Your task to perform on an android device: install app "Paramount+ | Peak Streaming" Image 0: 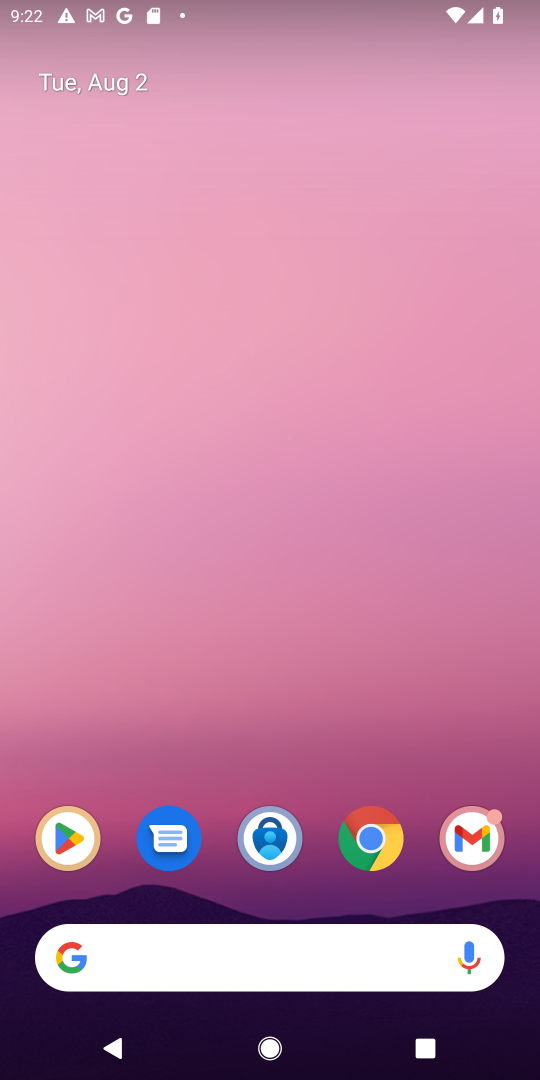
Step 0: press home button
Your task to perform on an android device: install app "Paramount+ | Peak Streaming" Image 1: 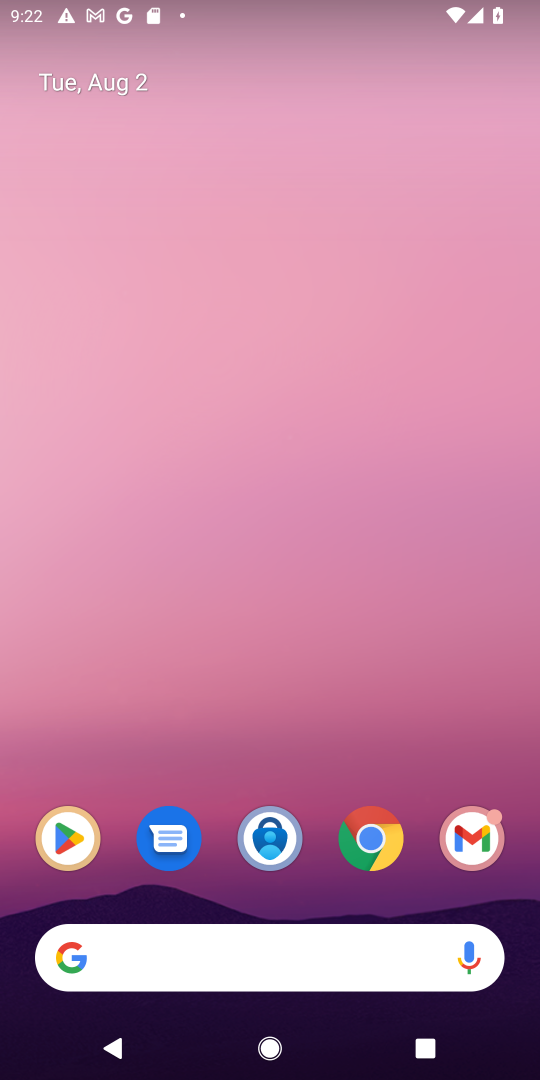
Step 1: drag from (322, 731) to (342, 63)
Your task to perform on an android device: install app "Paramount+ | Peak Streaming" Image 2: 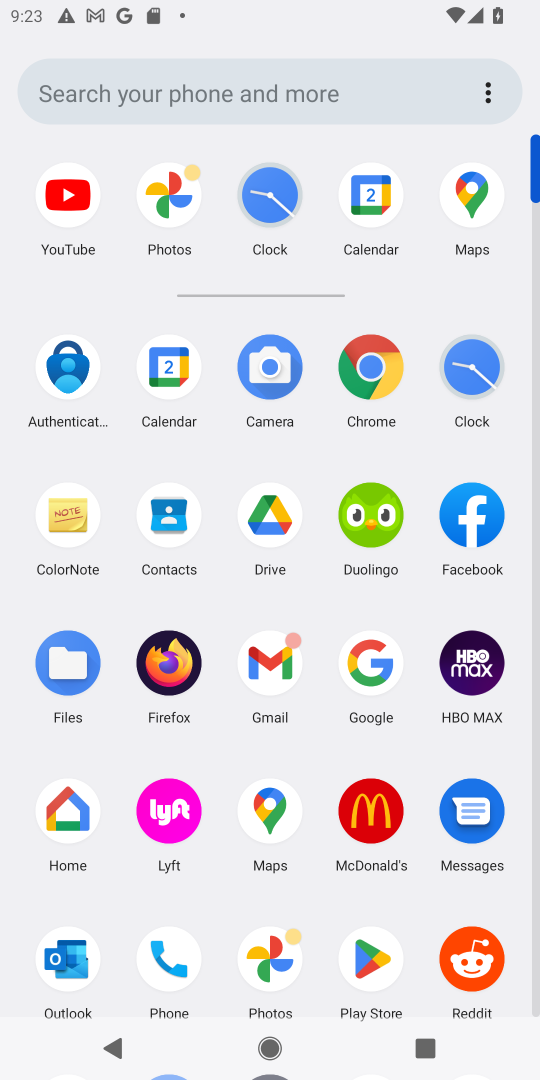
Step 2: click (374, 969)
Your task to perform on an android device: install app "Paramount+ | Peak Streaming" Image 3: 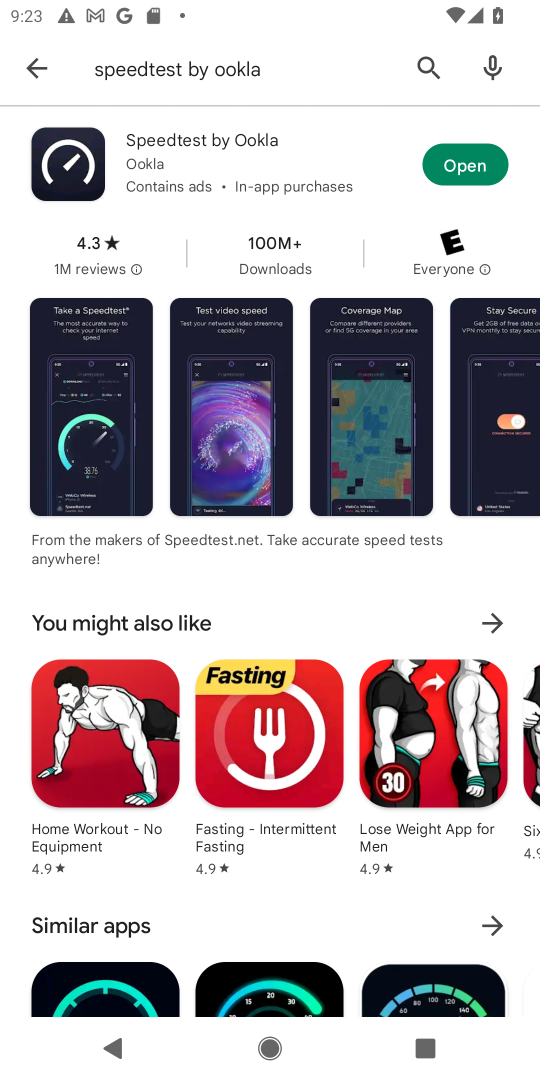
Step 3: click (426, 62)
Your task to perform on an android device: install app "Paramount+ | Peak Streaming" Image 4: 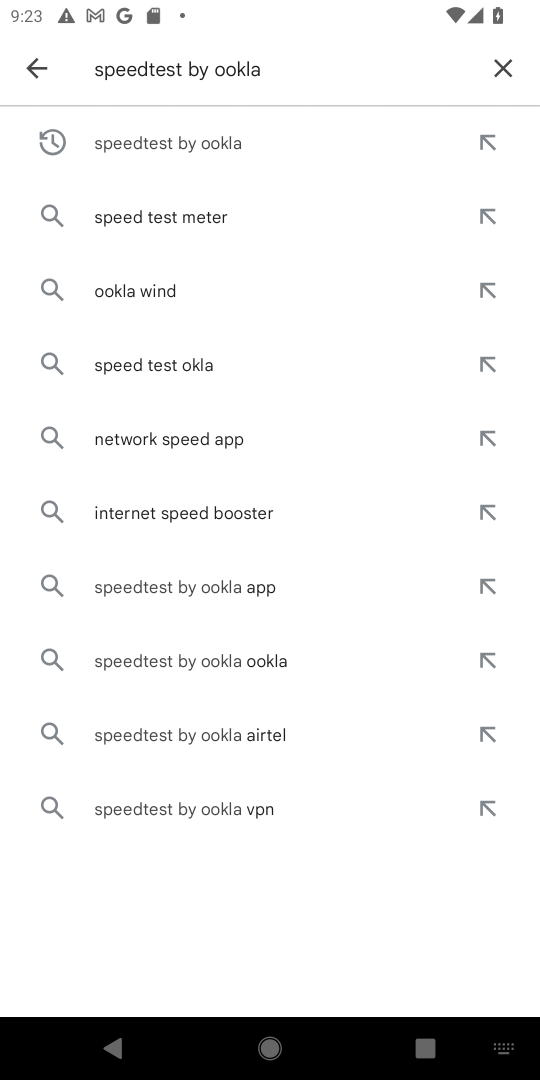
Step 4: click (500, 63)
Your task to perform on an android device: install app "Paramount+ | Peak Streaming" Image 5: 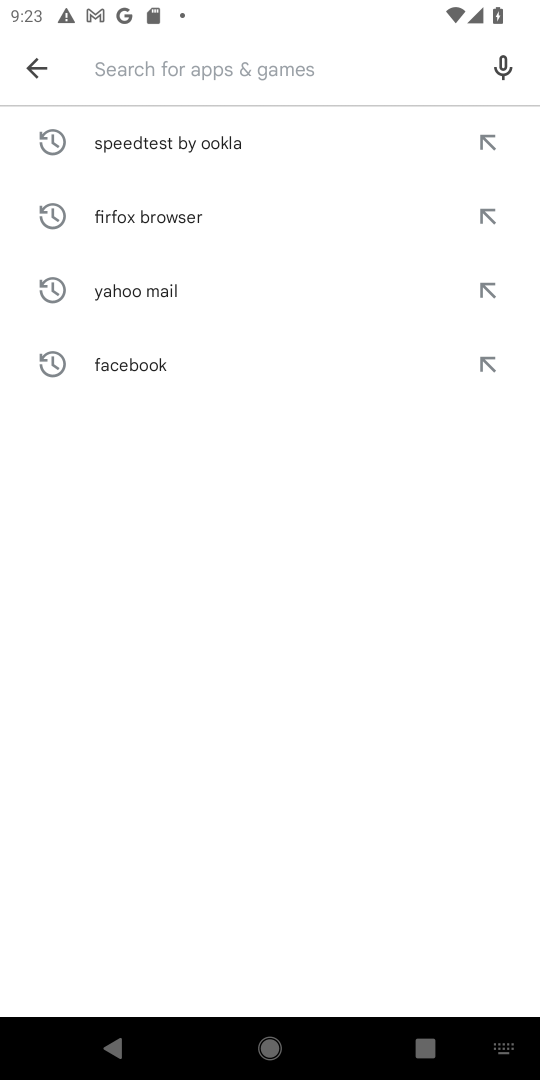
Step 5: click (386, 81)
Your task to perform on an android device: install app "Paramount+ | Peak Streaming" Image 6: 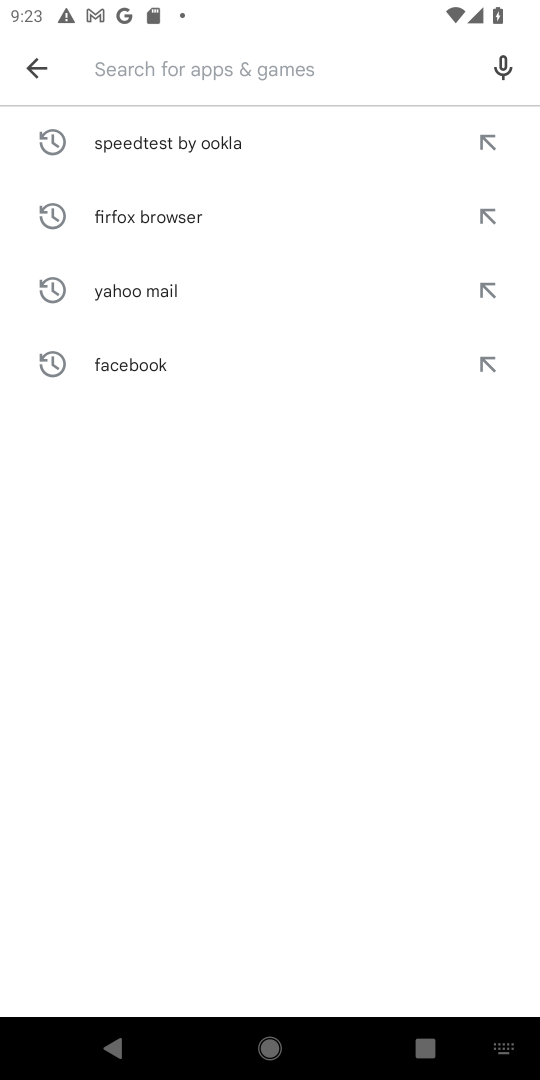
Step 6: type "paramount peak streaming"
Your task to perform on an android device: install app "Paramount+ | Peak Streaming" Image 7: 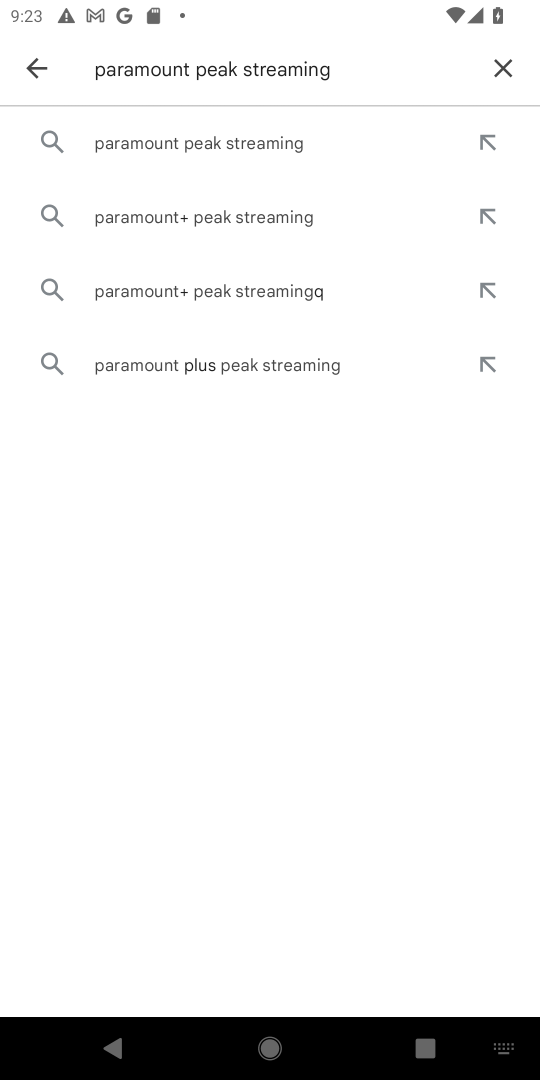
Step 7: click (300, 141)
Your task to perform on an android device: install app "Paramount+ | Peak Streaming" Image 8: 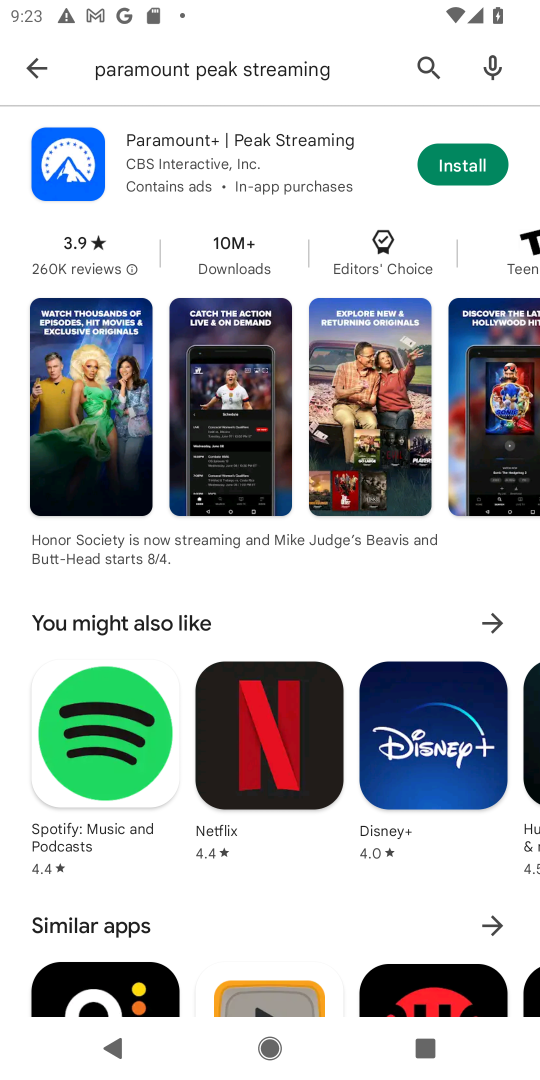
Step 8: click (462, 164)
Your task to perform on an android device: install app "Paramount+ | Peak Streaming" Image 9: 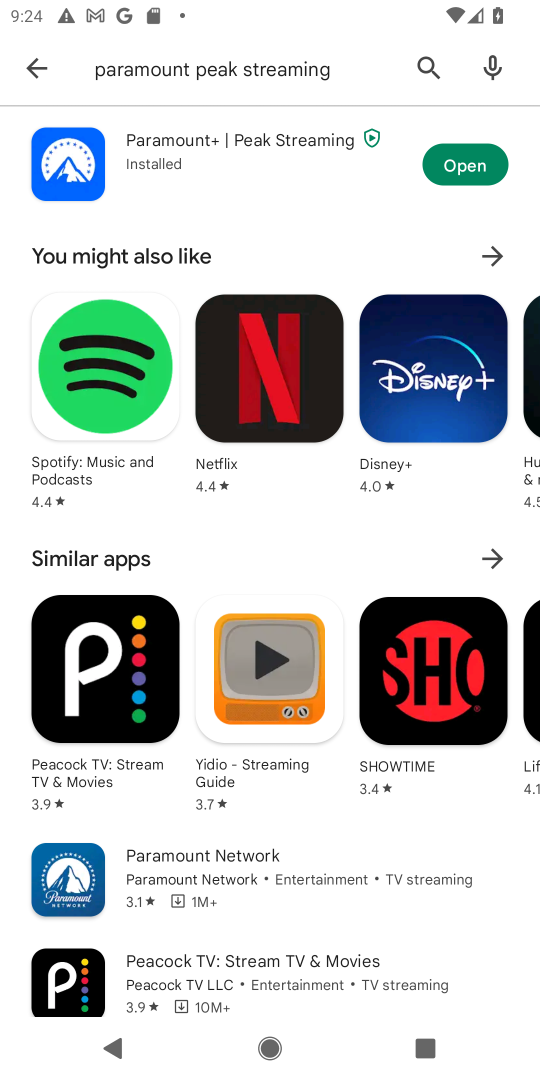
Step 9: task complete